Your task to perform on an android device: set the stopwatch Image 0: 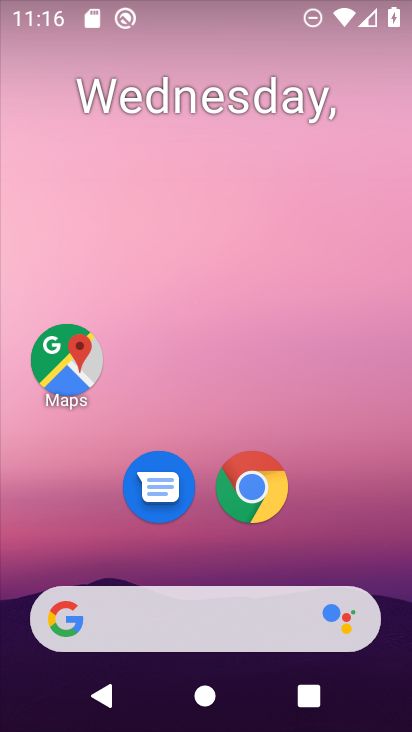
Step 0: drag from (343, 497) to (268, 53)
Your task to perform on an android device: set the stopwatch Image 1: 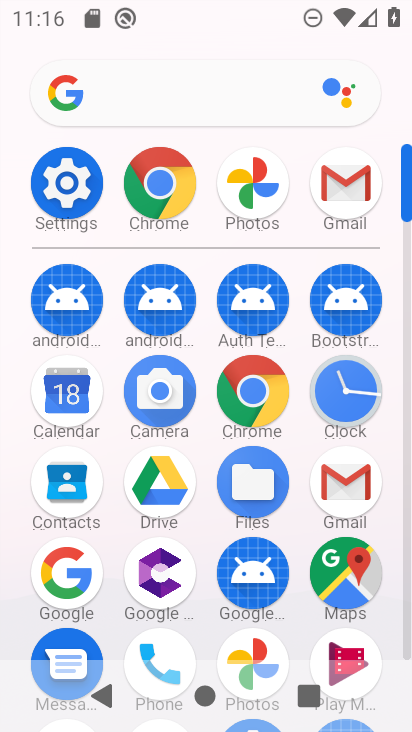
Step 1: click (333, 381)
Your task to perform on an android device: set the stopwatch Image 2: 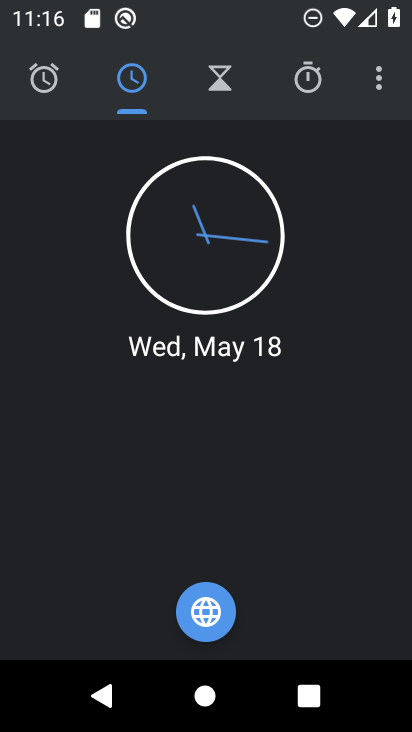
Step 2: click (307, 85)
Your task to perform on an android device: set the stopwatch Image 3: 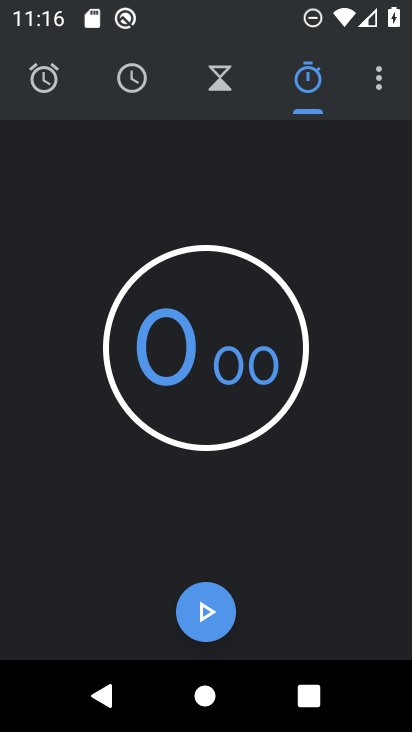
Step 3: task complete